Your task to perform on an android device: visit the assistant section in the google photos Image 0: 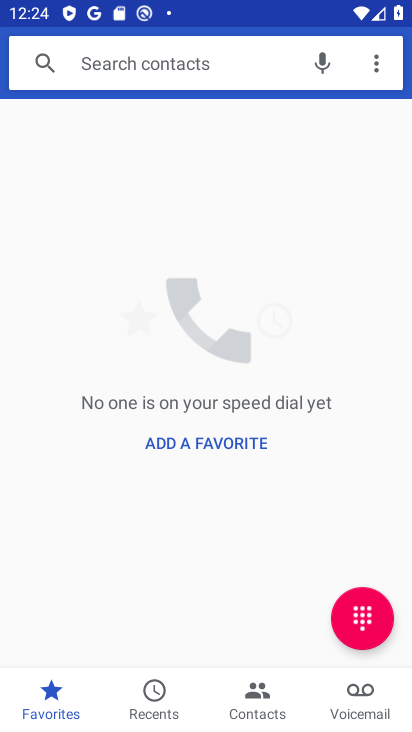
Step 0: press home button
Your task to perform on an android device: visit the assistant section in the google photos Image 1: 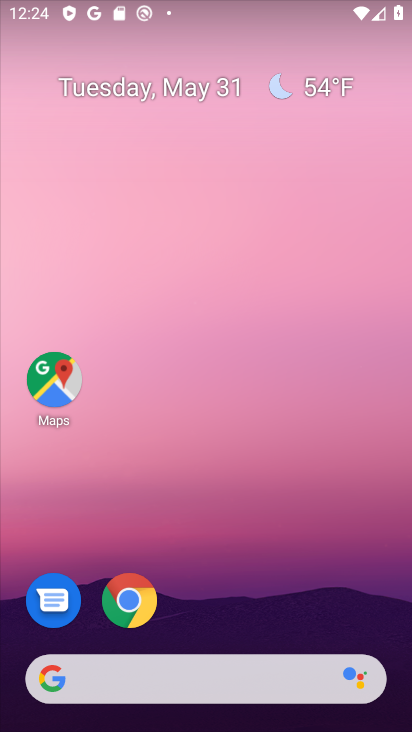
Step 1: drag from (214, 646) to (4, 40)
Your task to perform on an android device: visit the assistant section in the google photos Image 2: 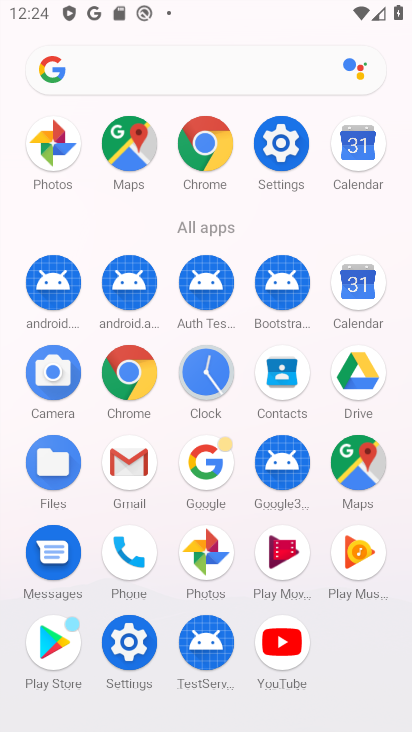
Step 2: click (213, 577)
Your task to perform on an android device: visit the assistant section in the google photos Image 3: 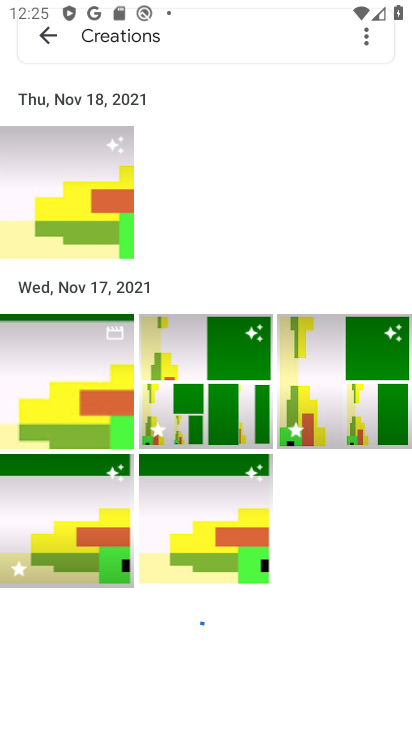
Step 3: click (50, 32)
Your task to perform on an android device: visit the assistant section in the google photos Image 4: 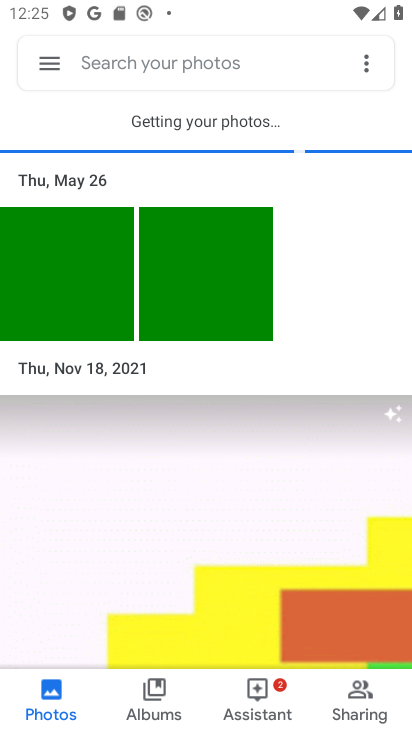
Step 4: click (270, 696)
Your task to perform on an android device: visit the assistant section in the google photos Image 5: 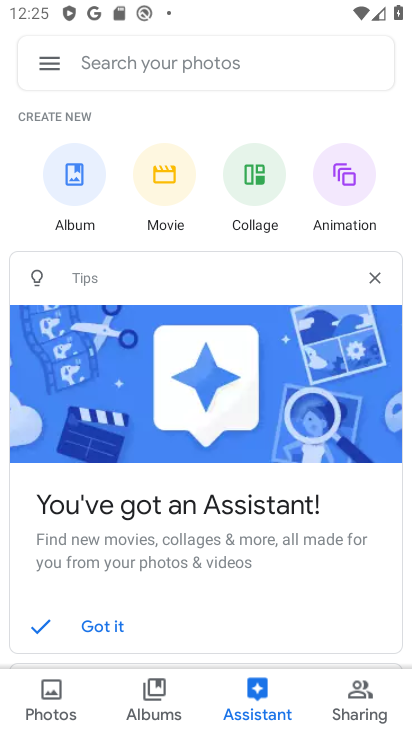
Step 5: task complete